Your task to perform on an android device: Do I have any events tomorrow? Image 0: 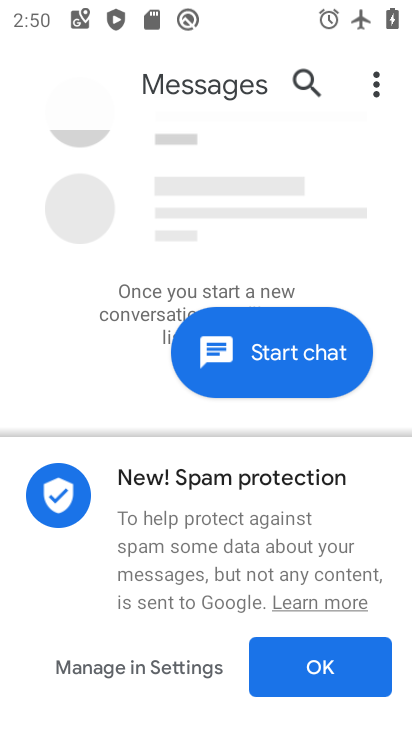
Step 0: press home button
Your task to perform on an android device: Do I have any events tomorrow? Image 1: 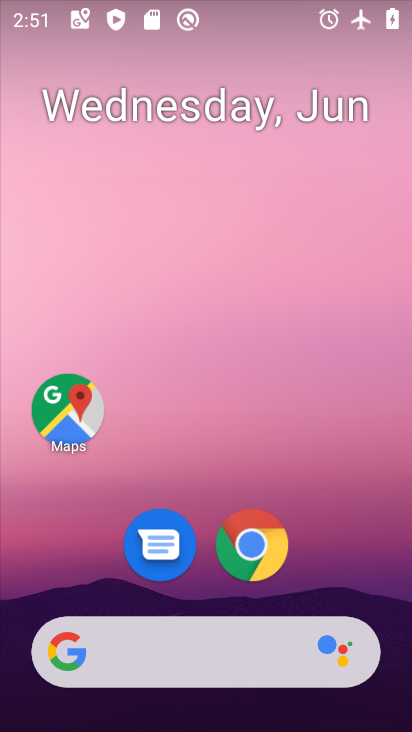
Step 1: drag from (351, 504) to (350, 127)
Your task to perform on an android device: Do I have any events tomorrow? Image 2: 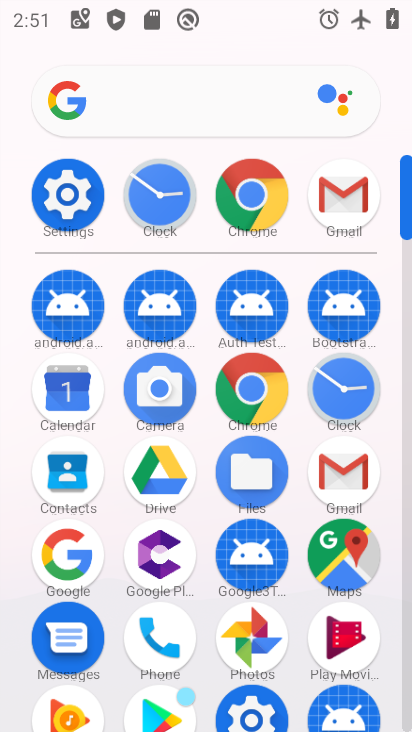
Step 2: click (70, 382)
Your task to perform on an android device: Do I have any events tomorrow? Image 3: 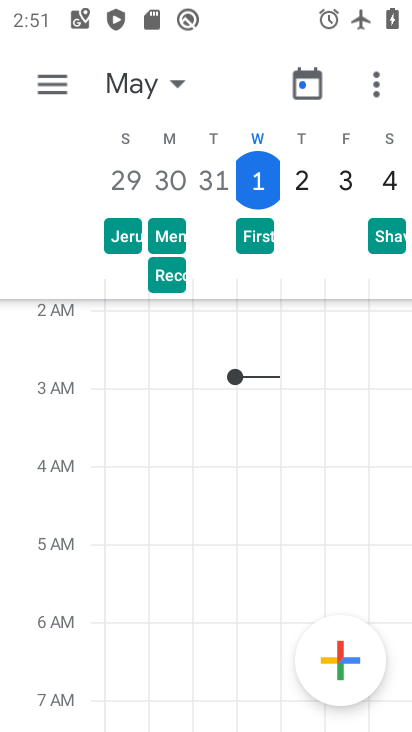
Step 3: click (311, 175)
Your task to perform on an android device: Do I have any events tomorrow? Image 4: 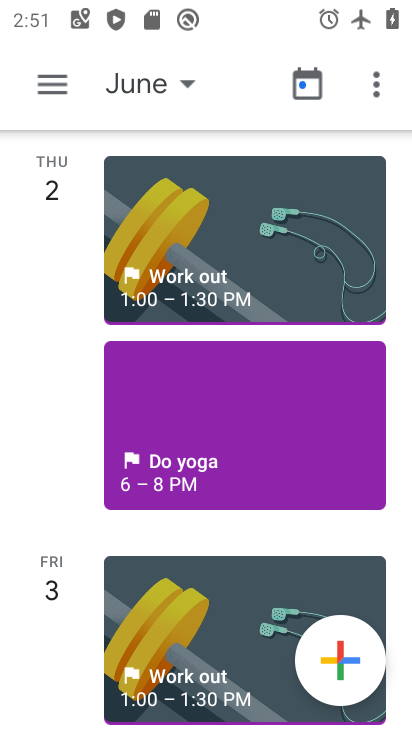
Step 4: task complete